Your task to perform on an android device: Open display settings Image 0: 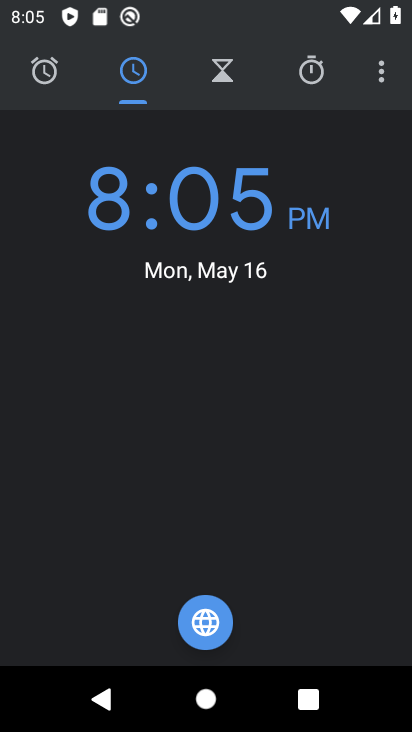
Step 0: press home button
Your task to perform on an android device: Open display settings Image 1: 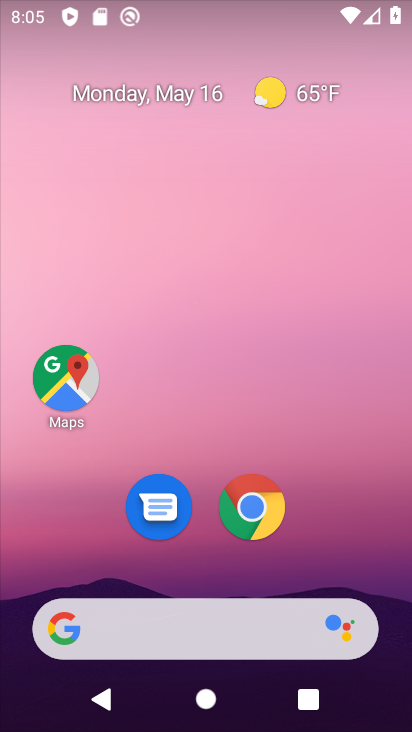
Step 1: drag from (200, 580) to (163, 19)
Your task to perform on an android device: Open display settings Image 2: 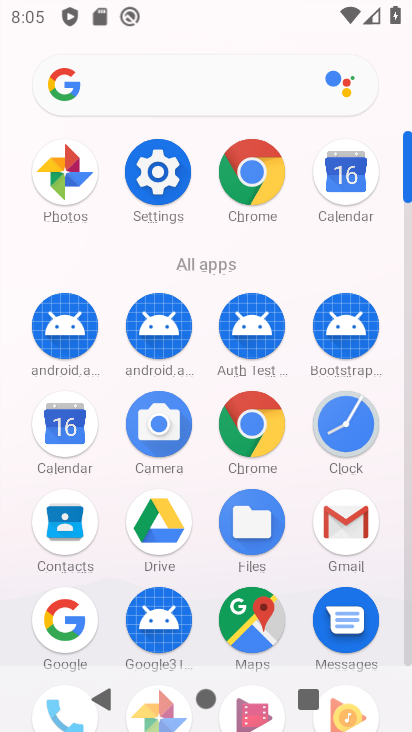
Step 2: click (172, 190)
Your task to perform on an android device: Open display settings Image 3: 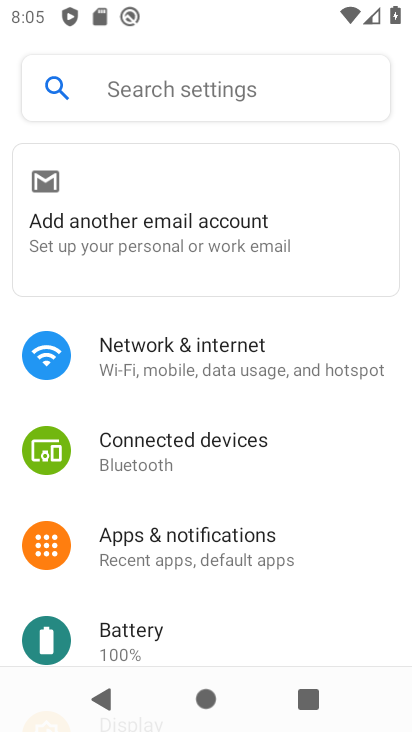
Step 3: drag from (236, 589) to (229, 350)
Your task to perform on an android device: Open display settings Image 4: 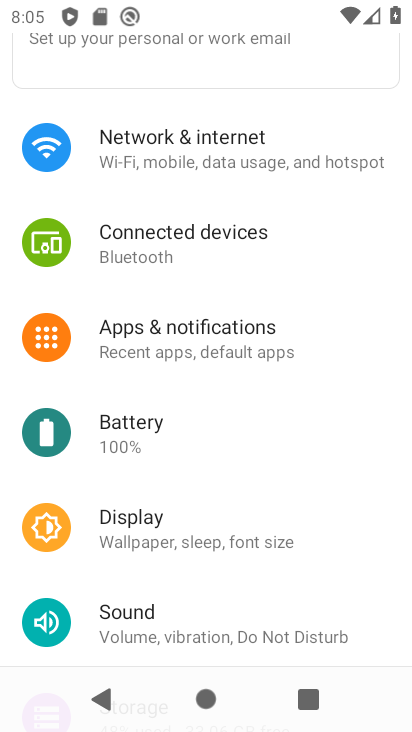
Step 4: click (138, 533)
Your task to perform on an android device: Open display settings Image 5: 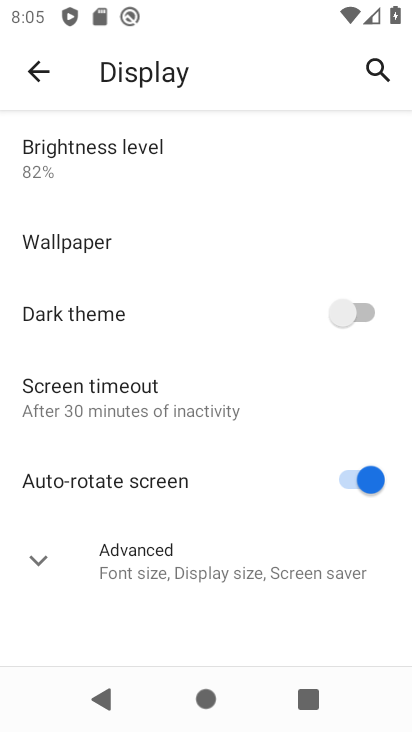
Step 5: click (150, 548)
Your task to perform on an android device: Open display settings Image 6: 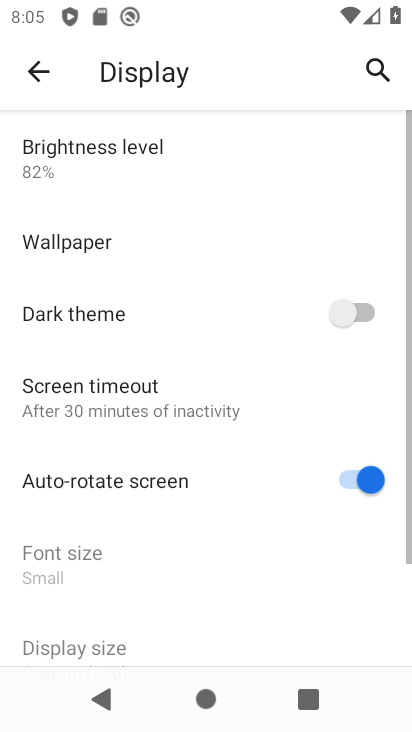
Step 6: task complete